Your task to perform on an android device: Open Yahoo.com Image 0: 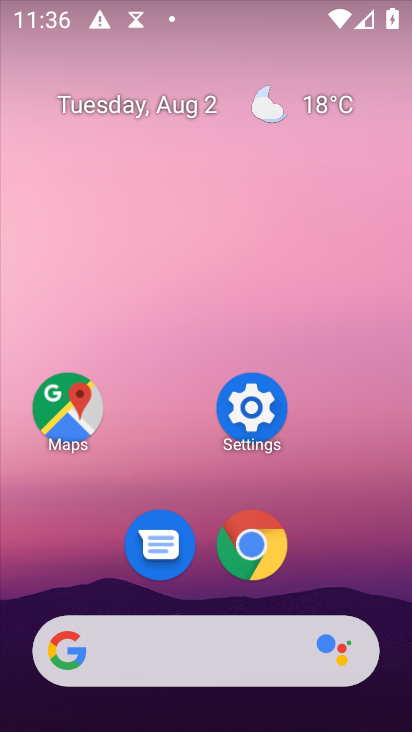
Step 0: click (255, 544)
Your task to perform on an android device: Open Yahoo.com Image 1: 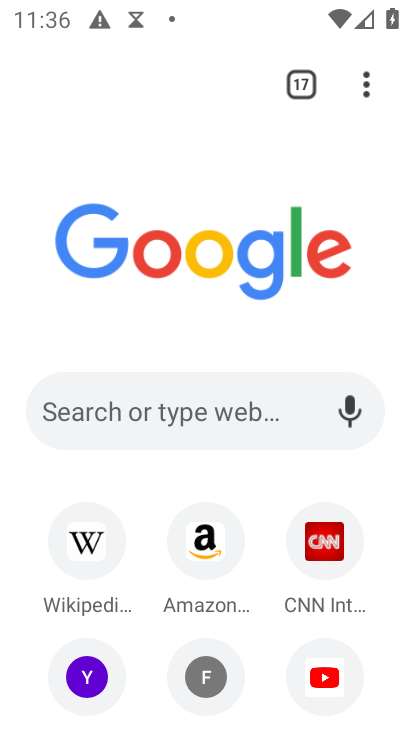
Step 1: drag from (145, 469) to (307, 121)
Your task to perform on an android device: Open Yahoo.com Image 2: 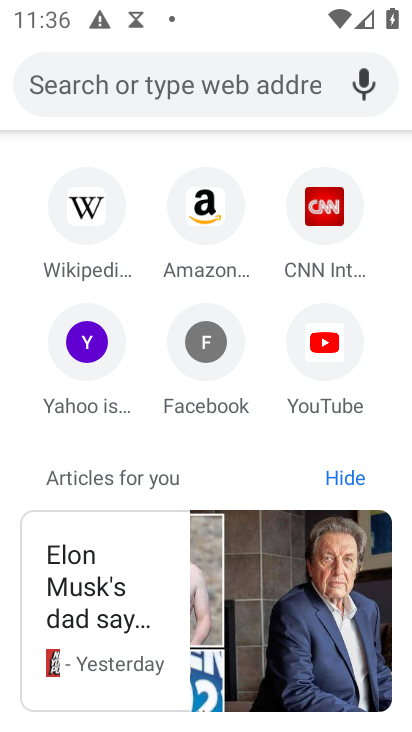
Step 2: click (87, 338)
Your task to perform on an android device: Open Yahoo.com Image 3: 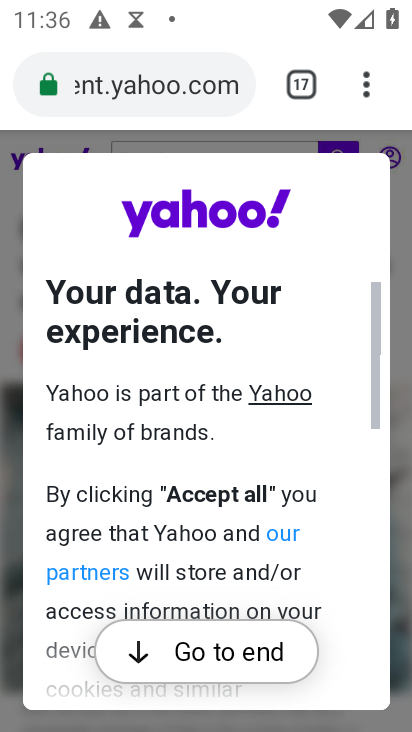
Step 3: click (185, 644)
Your task to perform on an android device: Open Yahoo.com Image 4: 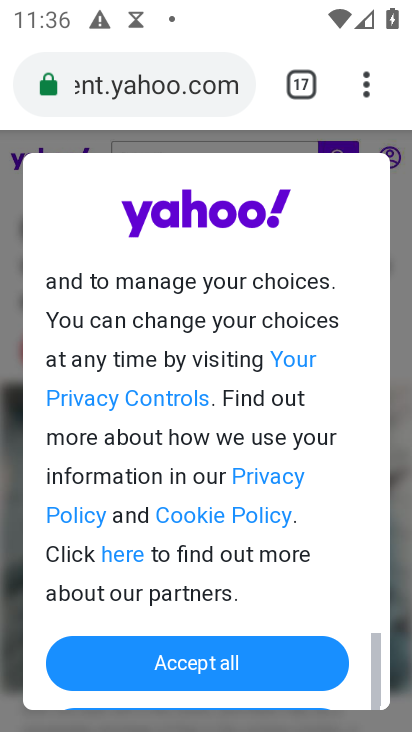
Step 4: click (213, 667)
Your task to perform on an android device: Open Yahoo.com Image 5: 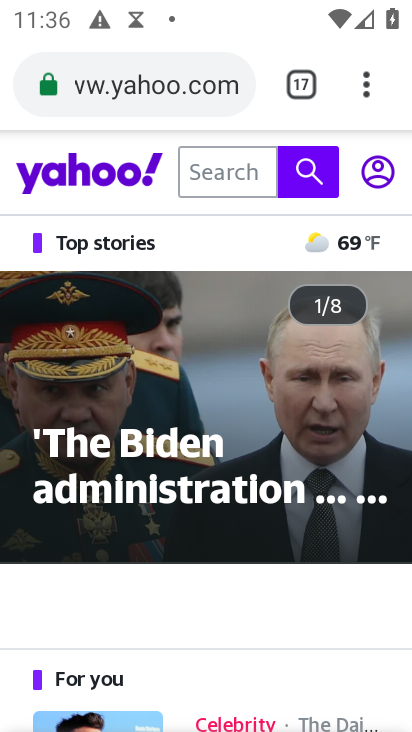
Step 5: task complete